Your task to perform on an android device: Do I have any events this weekend? Image 0: 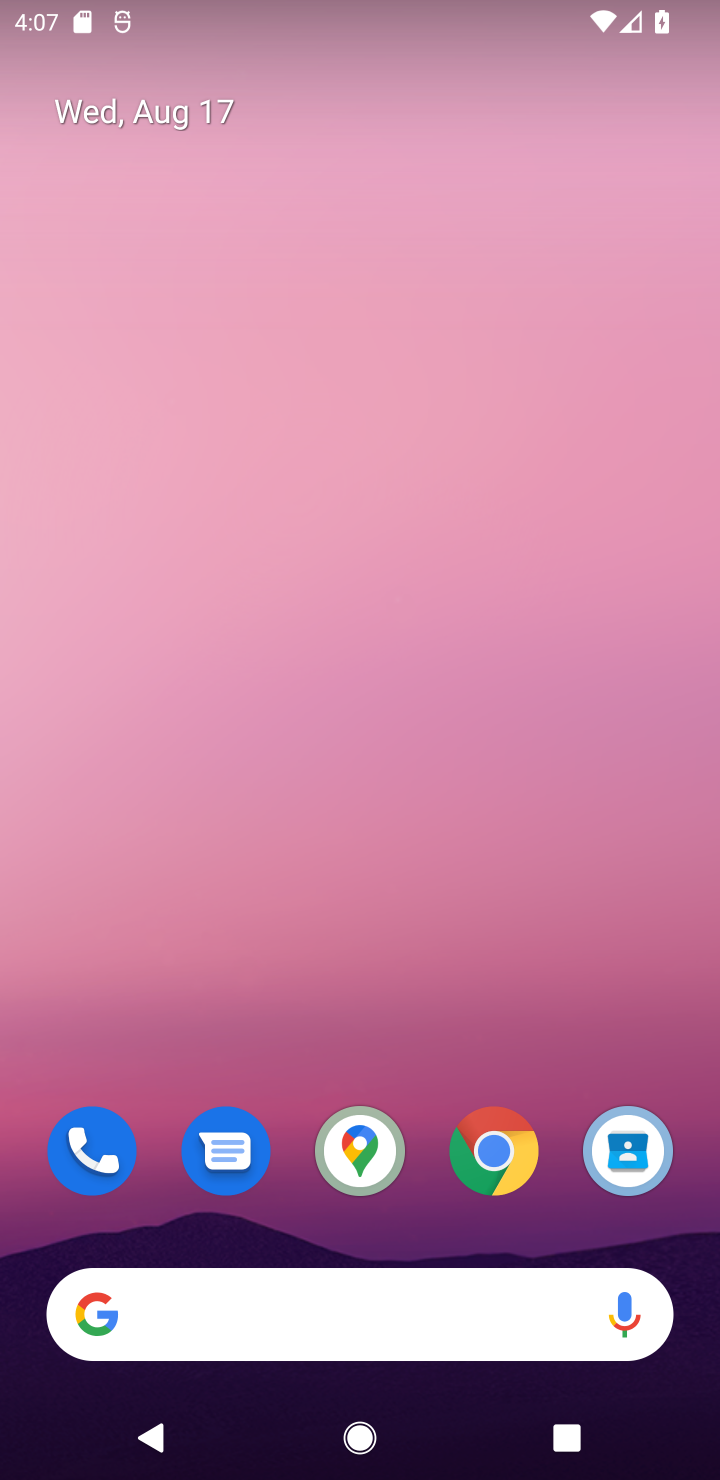
Step 0: drag from (426, 1255) to (449, 238)
Your task to perform on an android device: Do I have any events this weekend? Image 1: 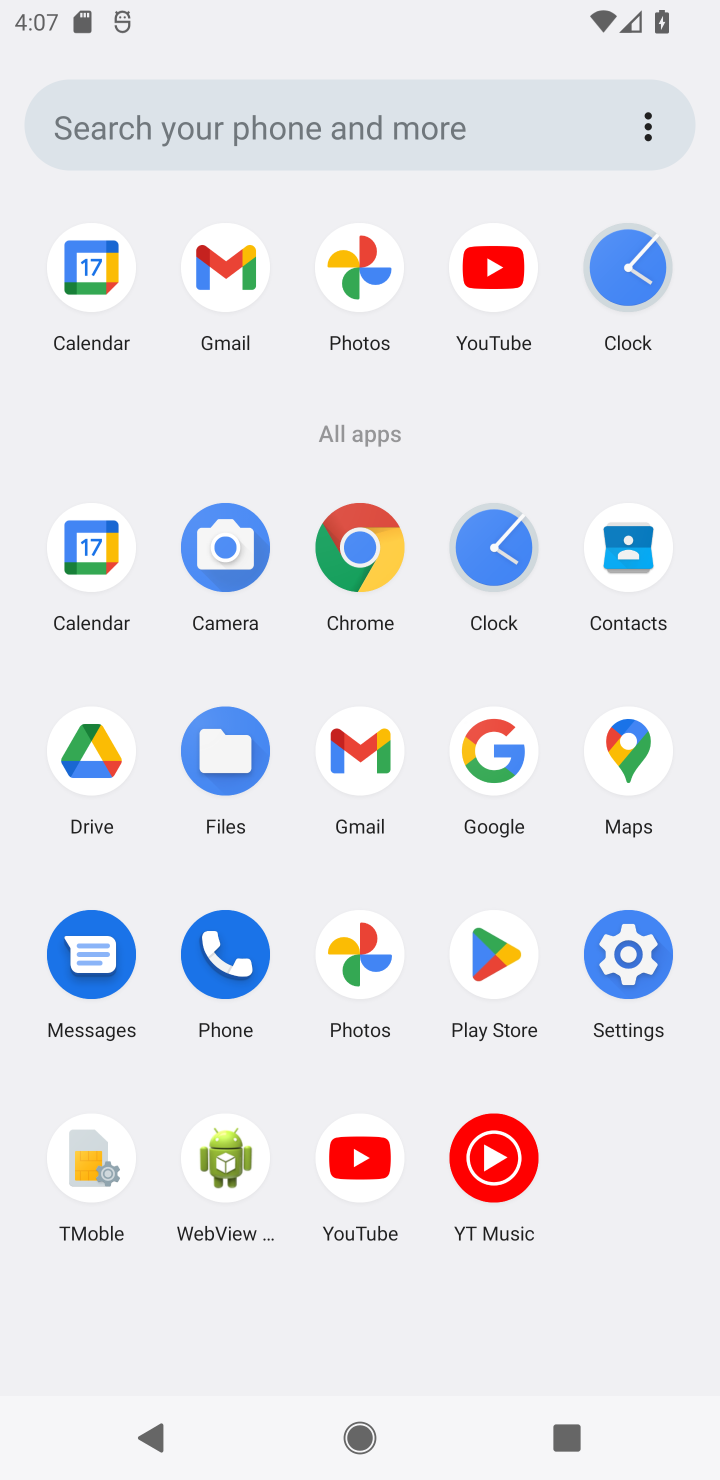
Step 1: click (90, 304)
Your task to perform on an android device: Do I have any events this weekend? Image 2: 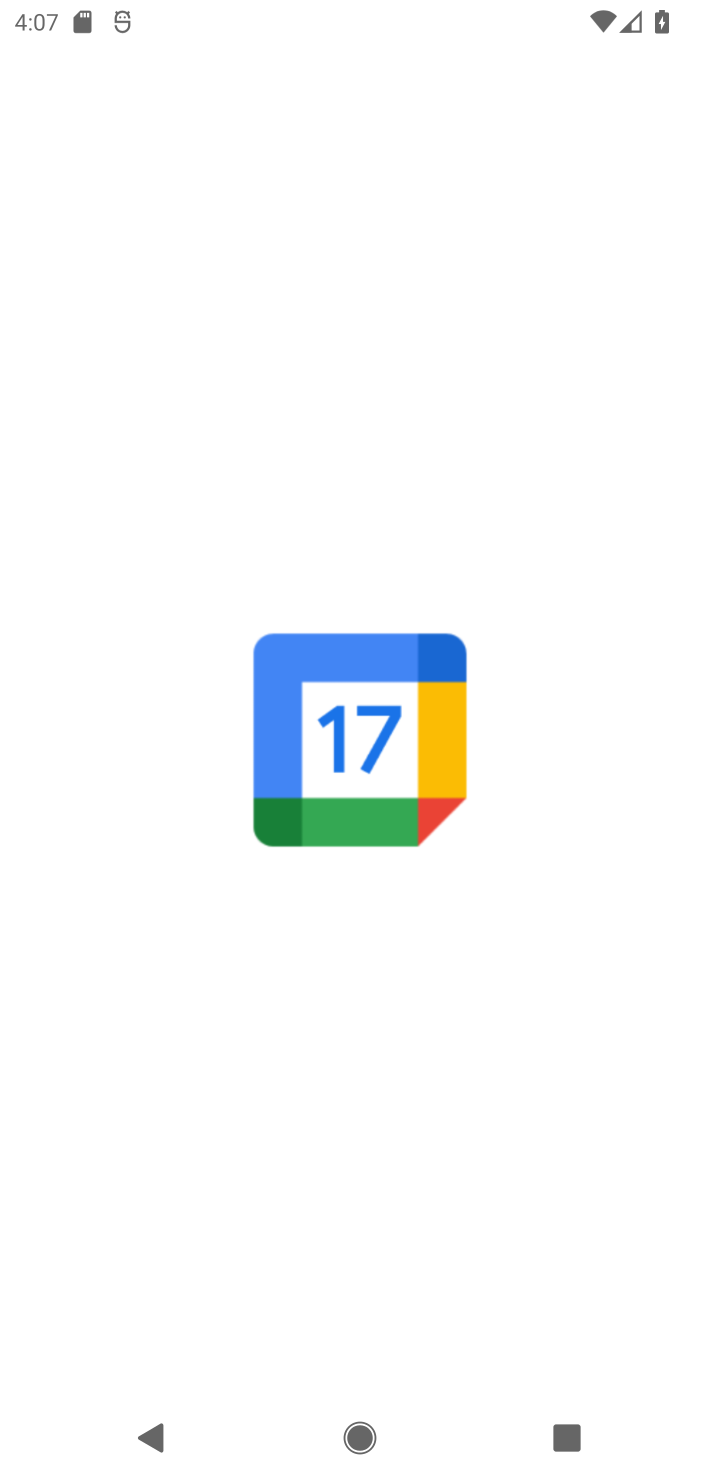
Step 2: task complete